Your task to perform on an android device: empty trash in the gmail app Image 0: 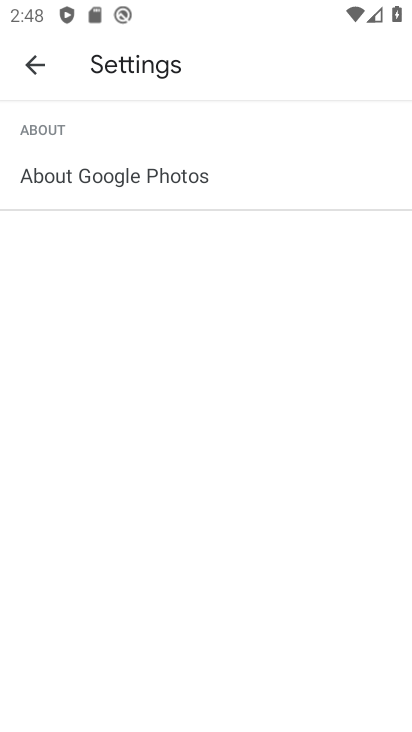
Step 0: press home button
Your task to perform on an android device: empty trash in the gmail app Image 1: 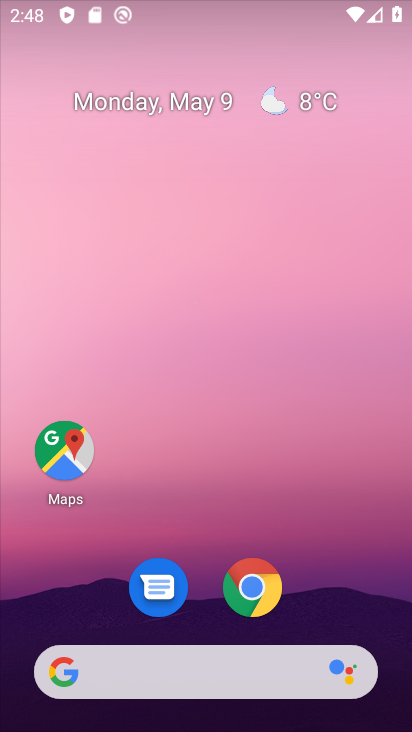
Step 1: drag from (237, 468) to (170, 130)
Your task to perform on an android device: empty trash in the gmail app Image 2: 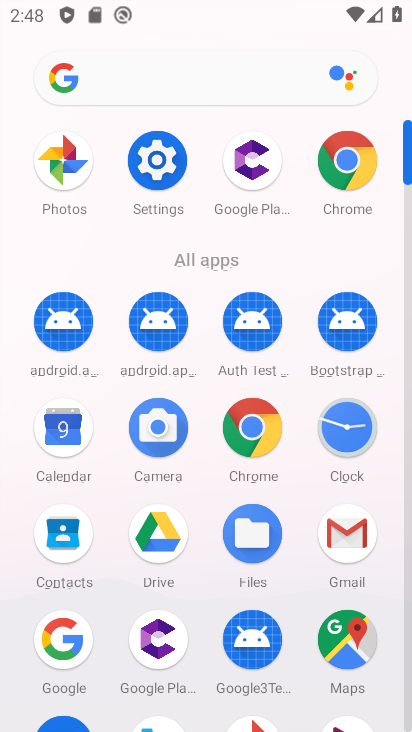
Step 2: click (338, 524)
Your task to perform on an android device: empty trash in the gmail app Image 3: 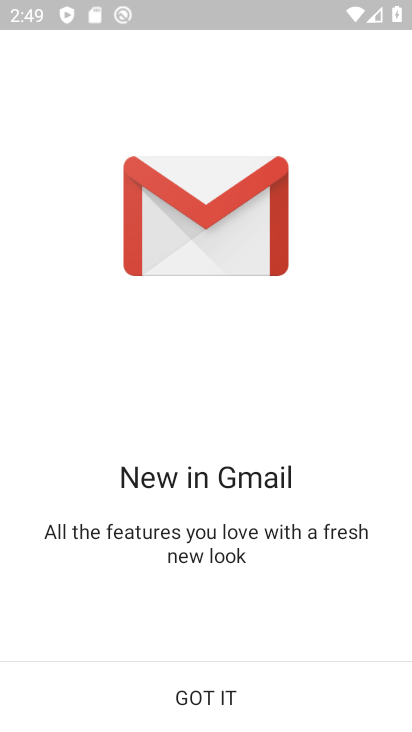
Step 3: click (295, 703)
Your task to perform on an android device: empty trash in the gmail app Image 4: 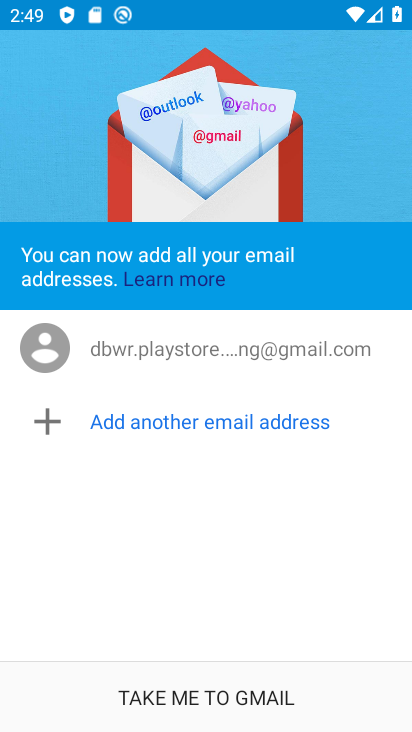
Step 4: click (258, 687)
Your task to perform on an android device: empty trash in the gmail app Image 5: 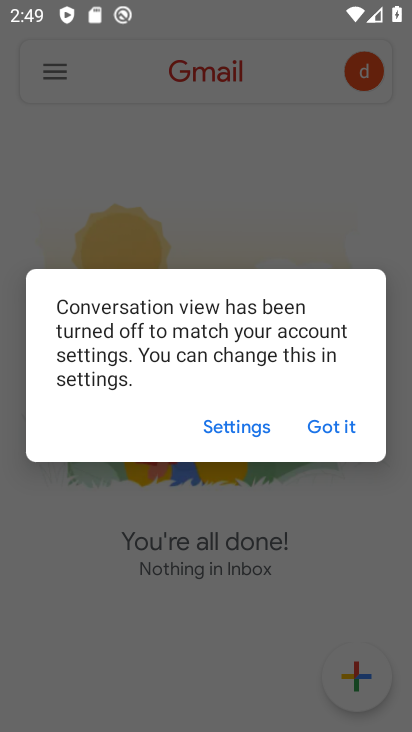
Step 5: click (312, 441)
Your task to perform on an android device: empty trash in the gmail app Image 6: 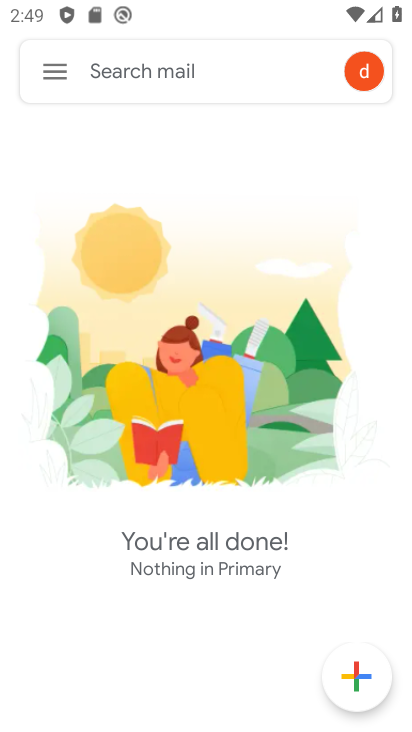
Step 6: click (55, 70)
Your task to perform on an android device: empty trash in the gmail app Image 7: 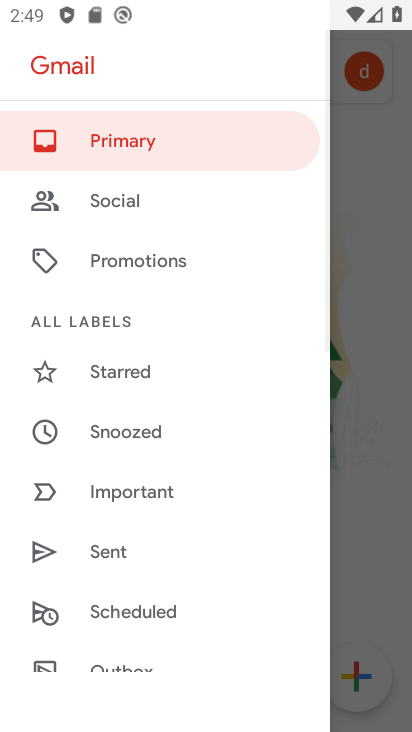
Step 7: drag from (126, 586) to (136, 234)
Your task to perform on an android device: empty trash in the gmail app Image 8: 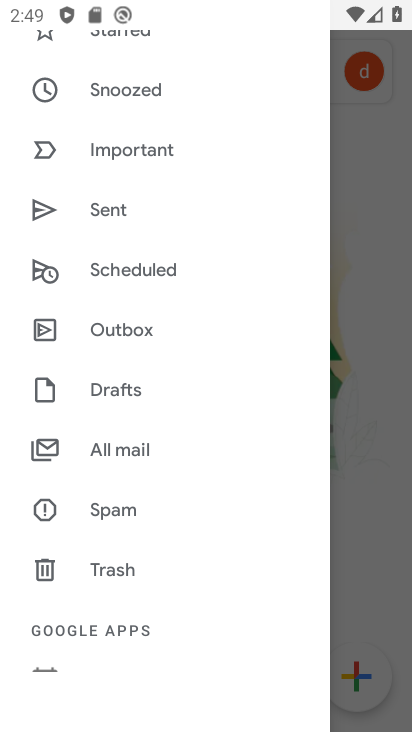
Step 8: click (79, 576)
Your task to perform on an android device: empty trash in the gmail app Image 9: 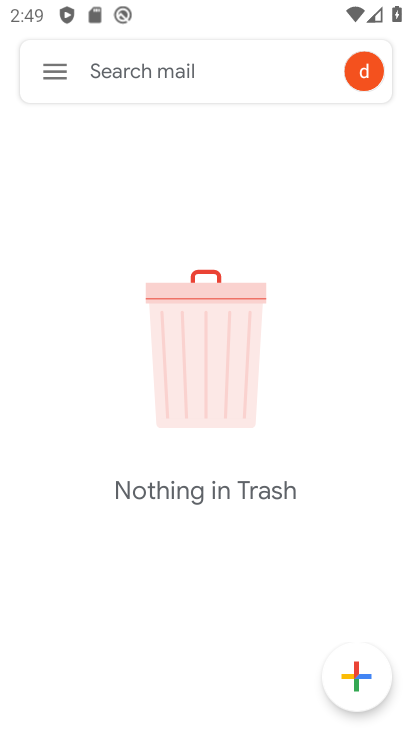
Step 9: task complete